Your task to perform on an android device: Go to wifi settings Image 0: 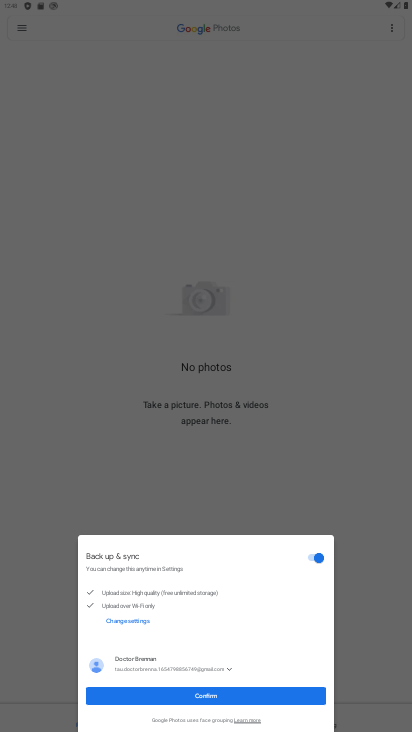
Step 0: press home button
Your task to perform on an android device: Go to wifi settings Image 1: 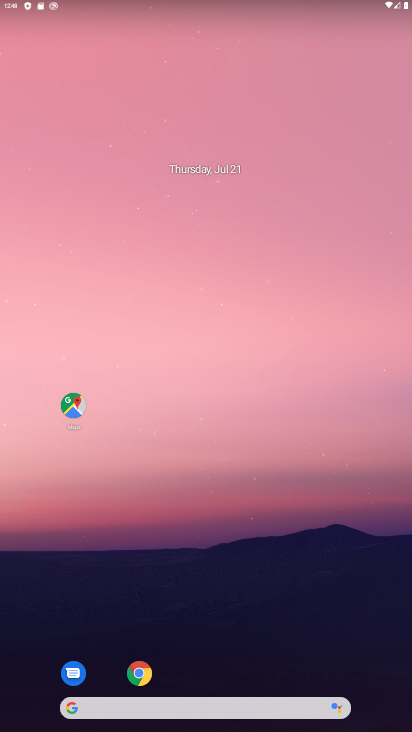
Step 1: drag from (178, 707) to (176, 9)
Your task to perform on an android device: Go to wifi settings Image 2: 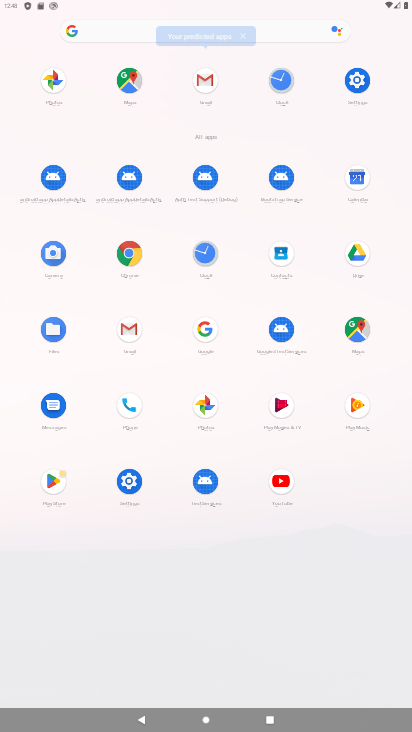
Step 2: click (352, 103)
Your task to perform on an android device: Go to wifi settings Image 3: 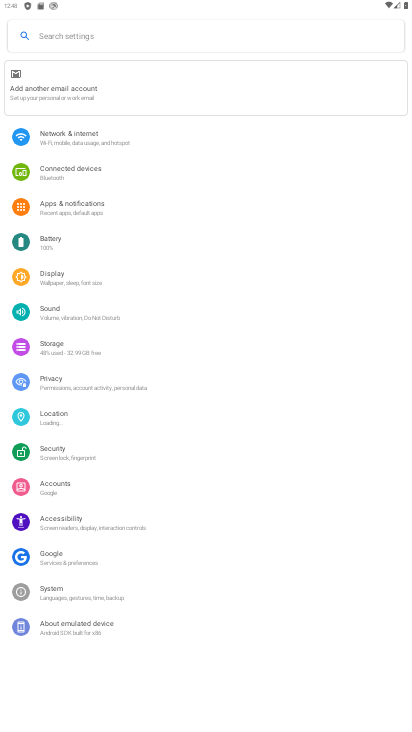
Step 3: click (54, 137)
Your task to perform on an android device: Go to wifi settings Image 4: 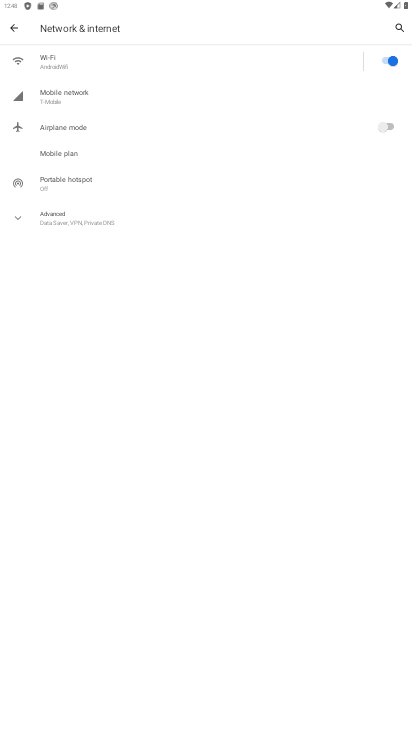
Step 4: click (86, 61)
Your task to perform on an android device: Go to wifi settings Image 5: 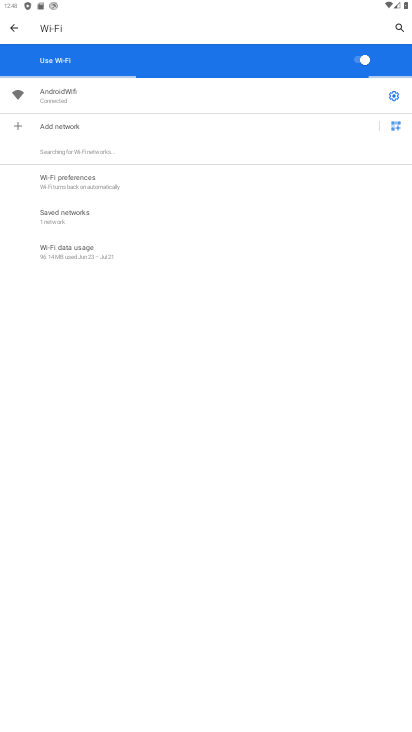
Step 5: task complete